Your task to perform on an android device: Go to wifi settings Image 0: 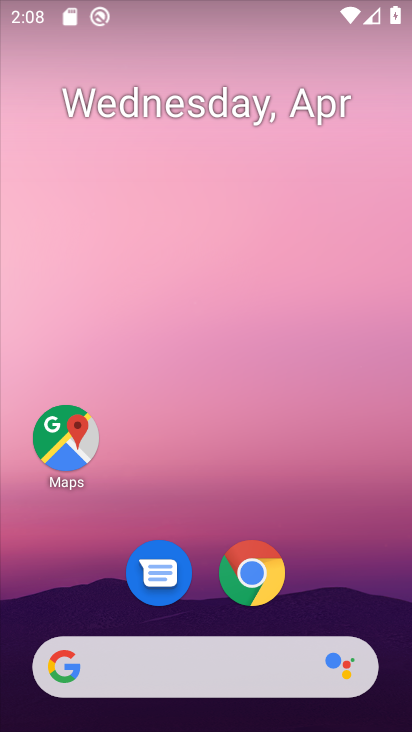
Step 0: drag from (351, 568) to (332, 216)
Your task to perform on an android device: Go to wifi settings Image 1: 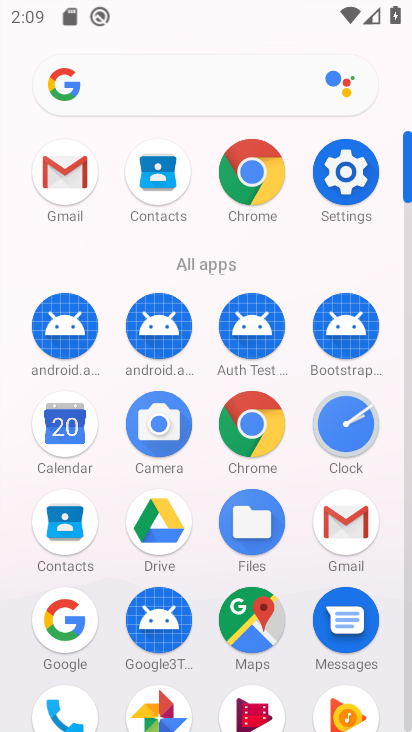
Step 1: click (318, 181)
Your task to perform on an android device: Go to wifi settings Image 2: 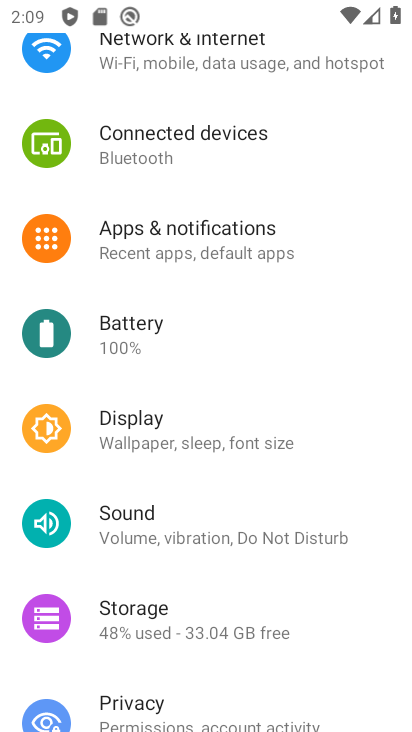
Step 2: drag from (361, 577) to (372, 405)
Your task to perform on an android device: Go to wifi settings Image 3: 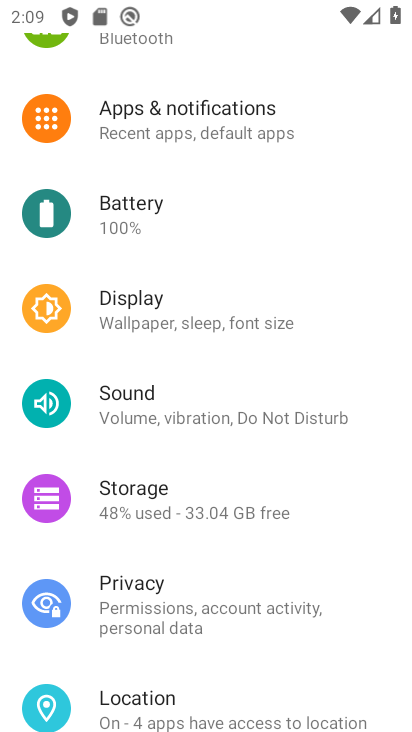
Step 3: drag from (365, 513) to (359, 355)
Your task to perform on an android device: Go to wifi settings Image 4: 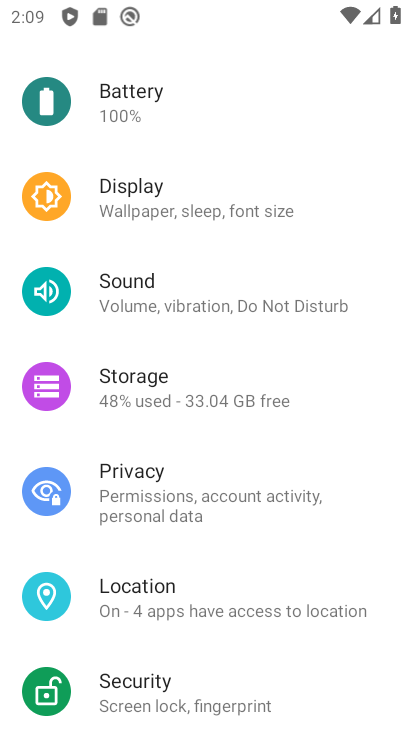
Step 4: drag from (372, 559) to (370, 362)
Your task to perform on an android device: Go to wifi settings Image 5: 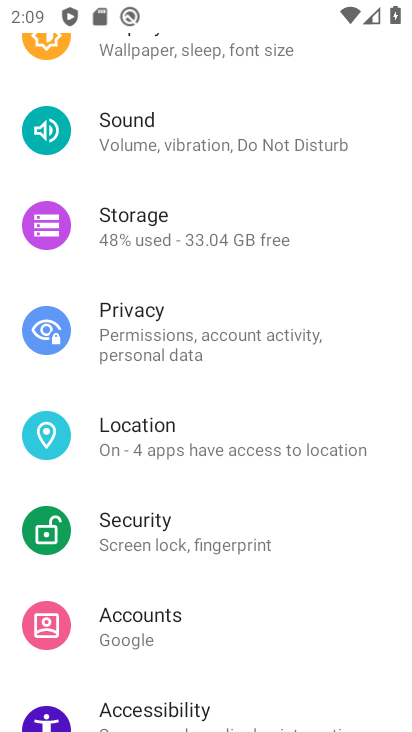
Step 5: drag from (363, 569) to (354, 368)
Your task to perform on an android device: Go to wifi settings Image 6: 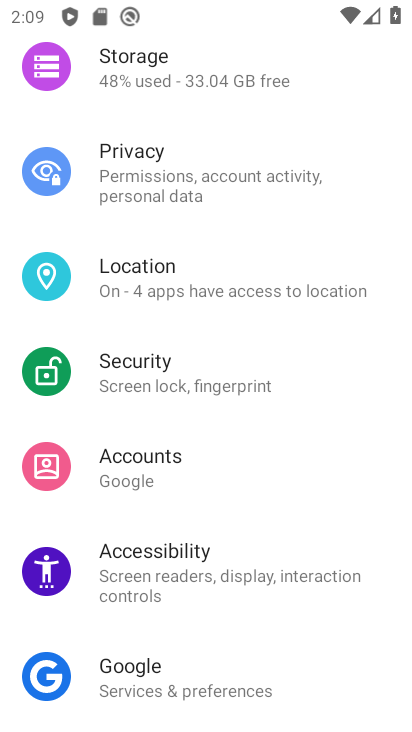
Step 6: drag from (354, 190) to (321, 448)
Your task to perform on an android device: Go to wifi settings Image 7: 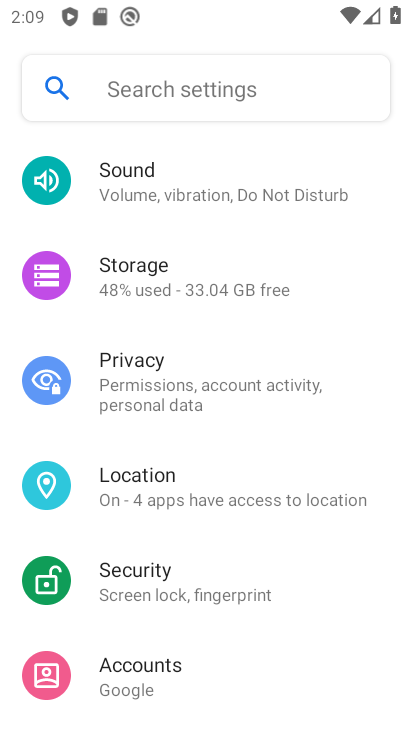
Step 7: drag from (358, 267) to (344, 472)
Your task to perform on an android device: Go to wifi settings Image 8: 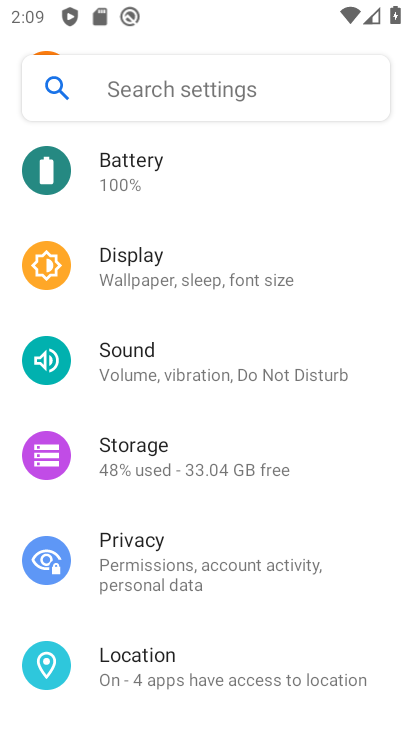
Step 8: drag from (366, 257) to (363, 390)
Your task to perform on an android device: Go to wifi settings Image 9: 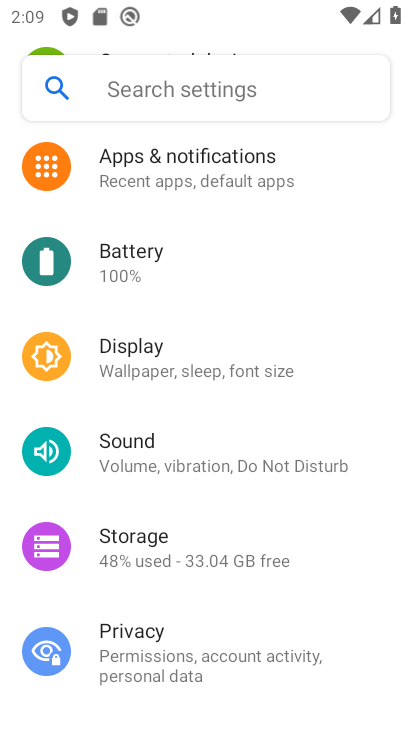
Step 9: drag from (366, 226) to (364, 337)
Your task to perform on an android device: Go to wifi settings Image 10: 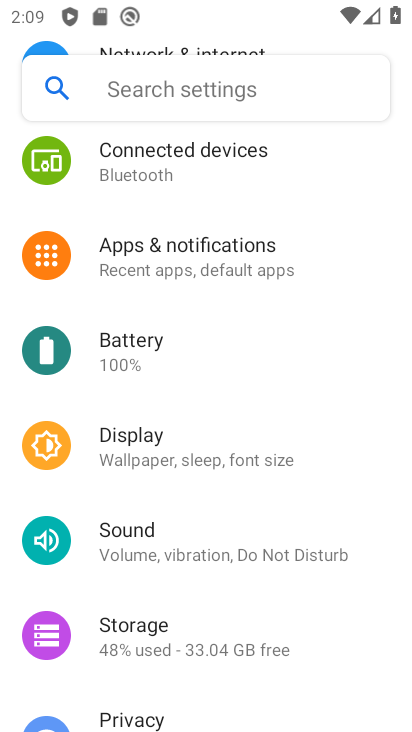
Step 10: drag from (363, 226) to (363, 357)
Your task to perform on an android device: Go to wifi settings Image 11: 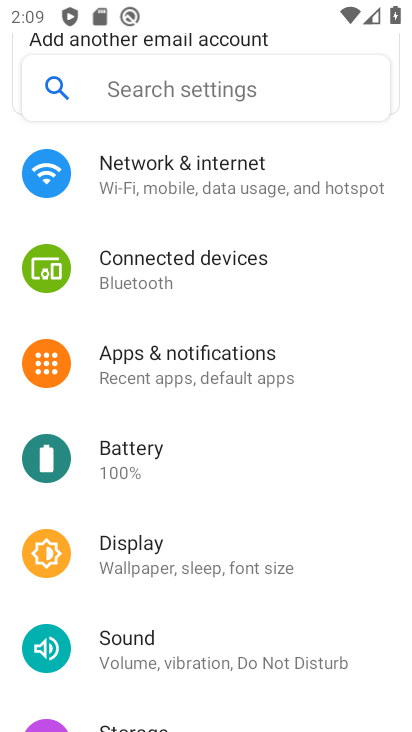
Step 11: click (296, 178)
Your task to perform on an android device: Go to wifi settings Image 12: 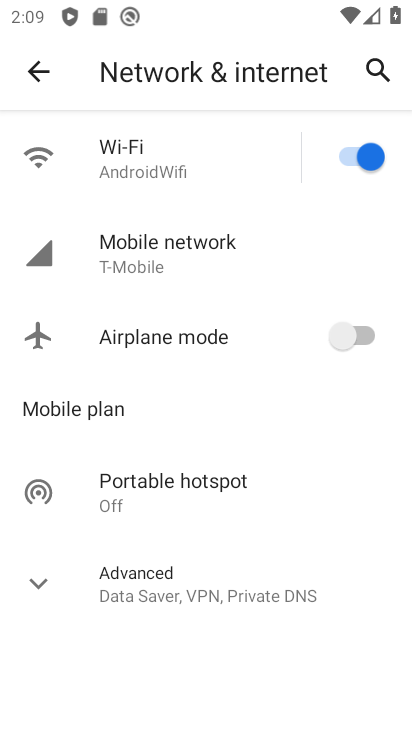
Step 12: click (154, 167)
Your task to perform on an android device: Go to wifi settings Image 13: 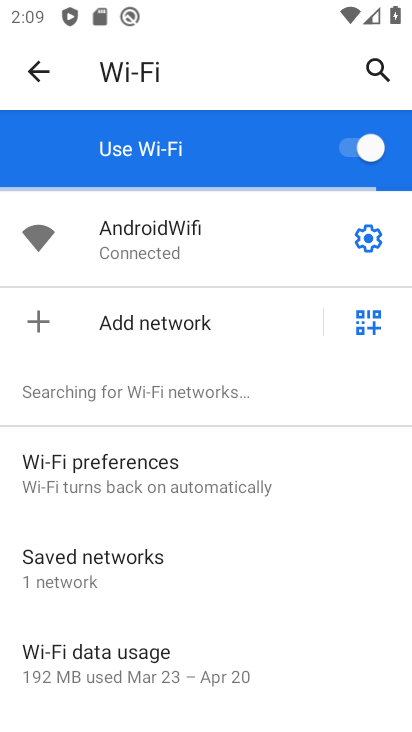
Step 13: task complete